Your task to perform on an android device: Open wifi settings Image 0: 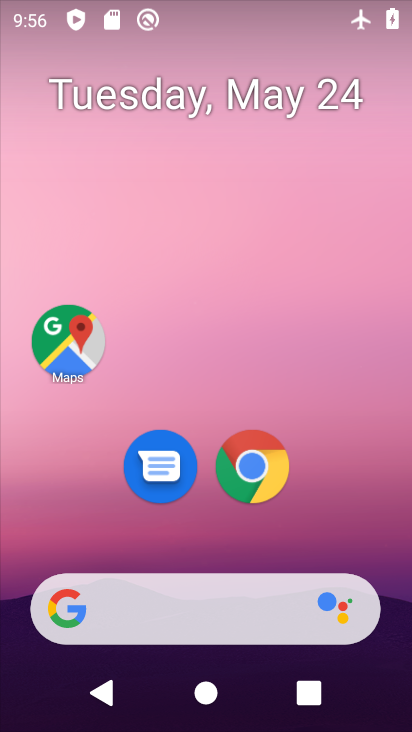
Step 0: click (394, 97)
Your task to perform on an android device: Open wifi settings Image 1: 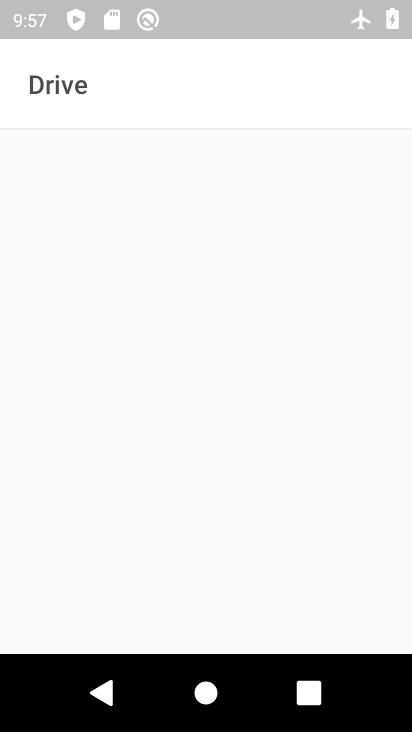
Step 1: press home button
Your task to perform on an android device: Open wifi settings Image 2: 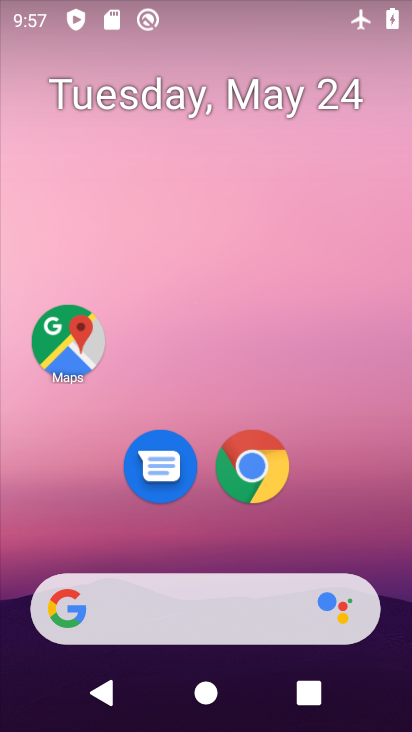
Step 2: drag from (212, 548) to (252, 6)
Your task to perform on an android device: Open wifi settings Image 3: 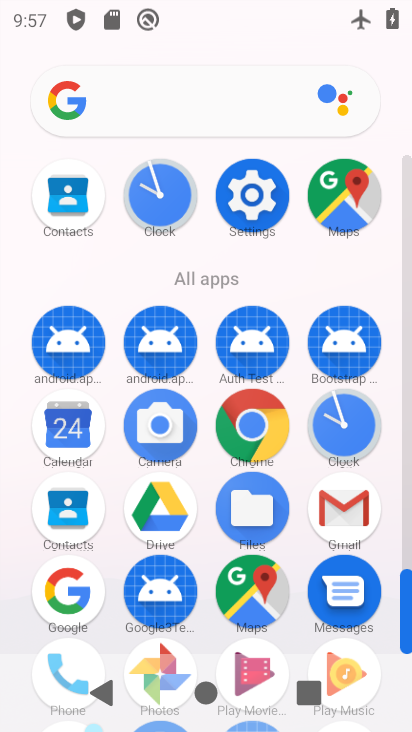
Step 3: click (260, 197)
Your task to perform on an android device: Open wifi settings Image 4: 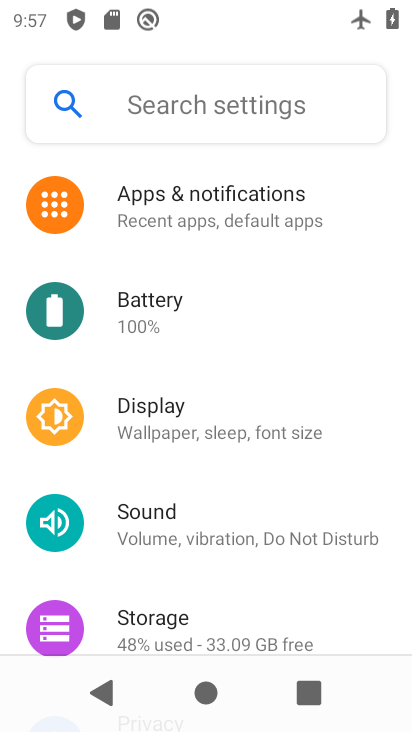
Step 4: drag from (255, 221) to (268, 443)
Your task to perform on an android device: Open wifi settings Image 5: 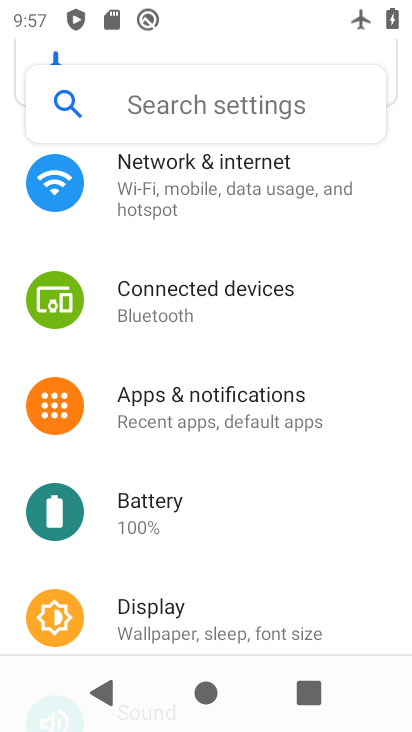
Step 5: drag from (228, 225) to (243, 395)
Your task to perform on an android device: Open wifi settings Image 6: 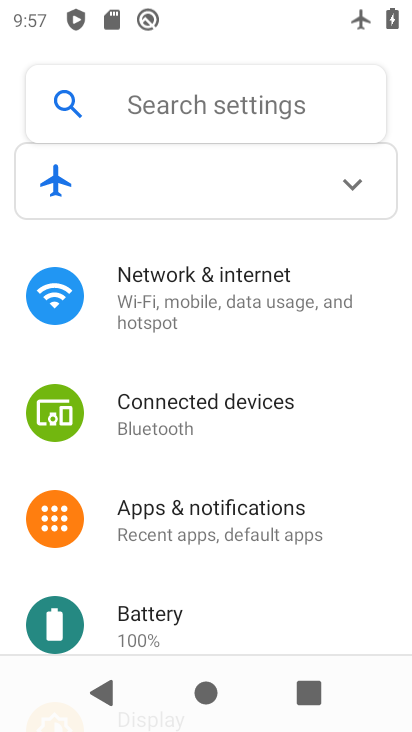
Step 6: click (217, 312)
Your task to perform on an android device: Open wifi settings Image 7: 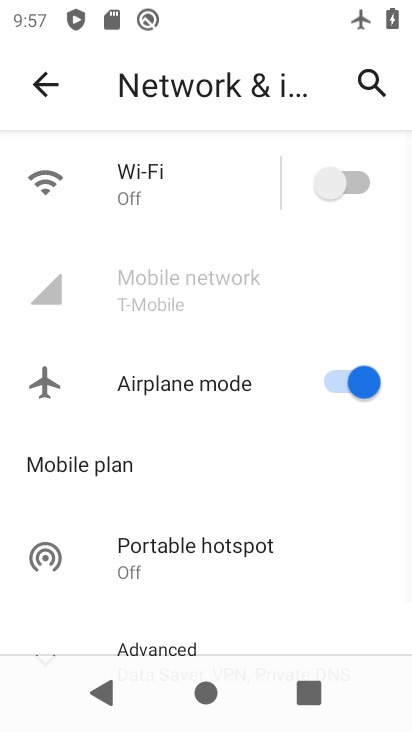
Step 7: click (222, 203)
Your task to perform on an android device: Open wifi settings Image 8: 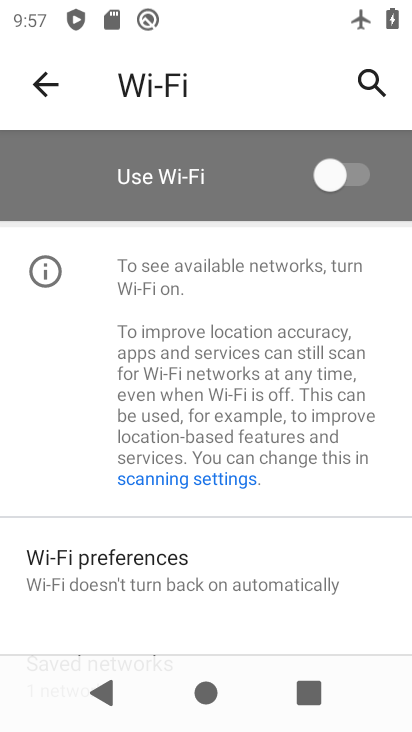
Step 8: click (368, 182)
Your task to perform on an android device: Open wifi settings Image 9: 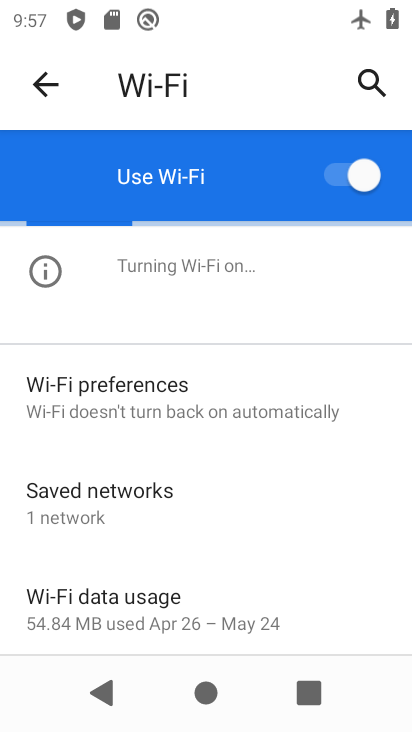
Step 9: task complete